Your task to perform on an android device: turn off priority inbox in the gmail app Image 0: 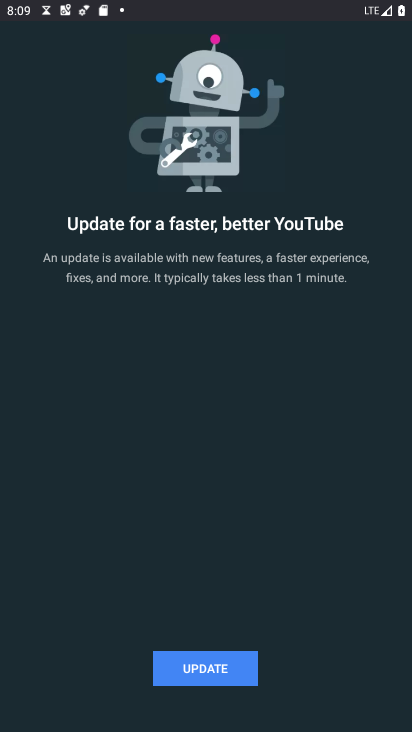
Step 0: press back button
Your task to perform on an android device: turn off priority inbox in the gmail app Image 1: 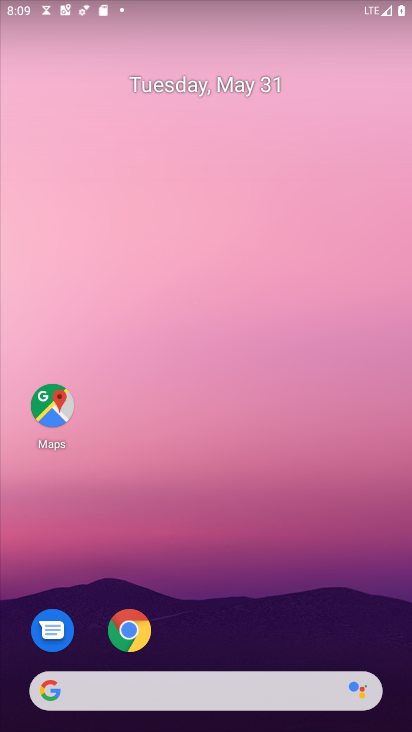
Step 1: drag from (275, 615) to (251, 113)
Your task to perform on an android device: turn off priority inbox in the gmail app Image 2: 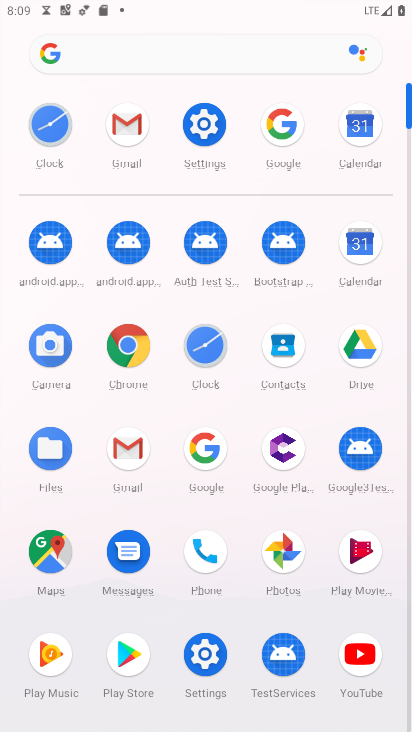
Step 2: click (129, 124)
Your task to perform on an android device: turn off priority inbox in the gmail app Image 3: 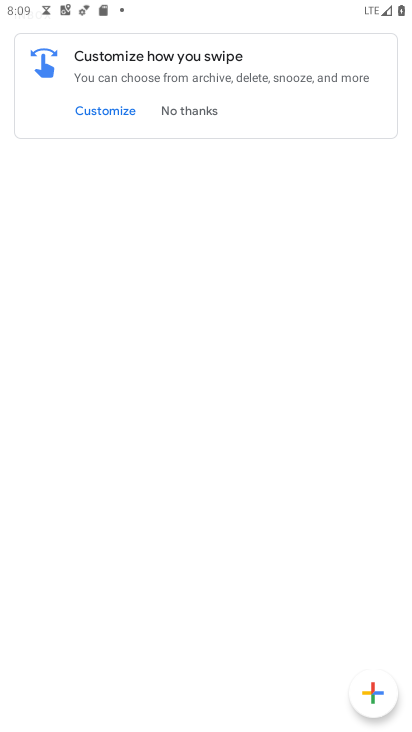
Step 3: click (204, 109)
Your task to perform on an android device: turn off priority inbox in the gmail app Image 4: 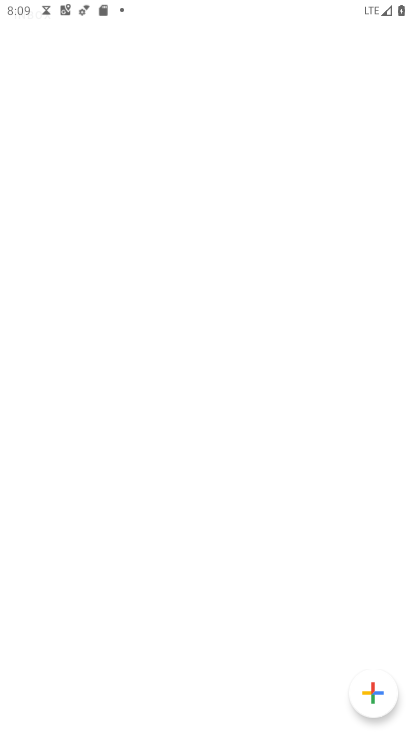
Step 4: click (55, 46)
Your task to perform on an android device: turn off priority inbox in the gmail app Image 5: 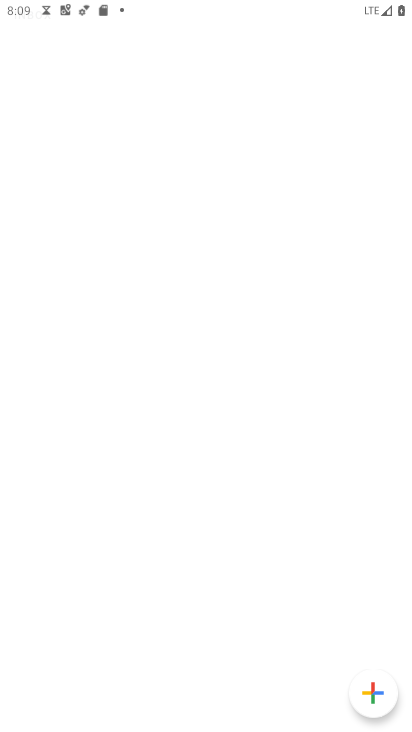
Step 5: drag from (173, 93) to (246, 446)
Your task to perform on an android device: turn off priority inbox in the gmail app Image 6: 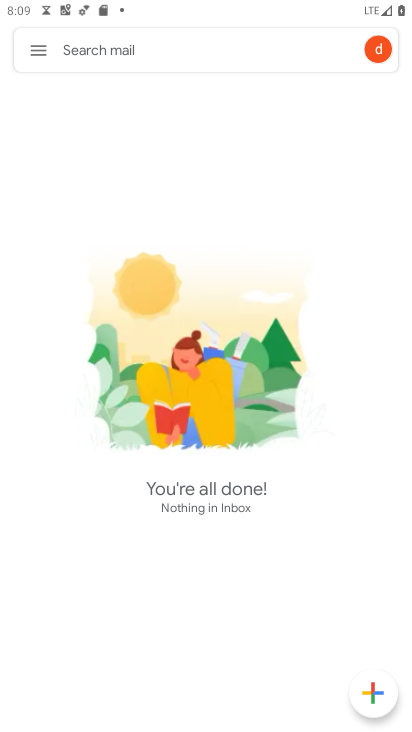
Step 6: click (45, 59)
Your task to perform on an android device: turn off priority inbox in the gmail app Image 7: 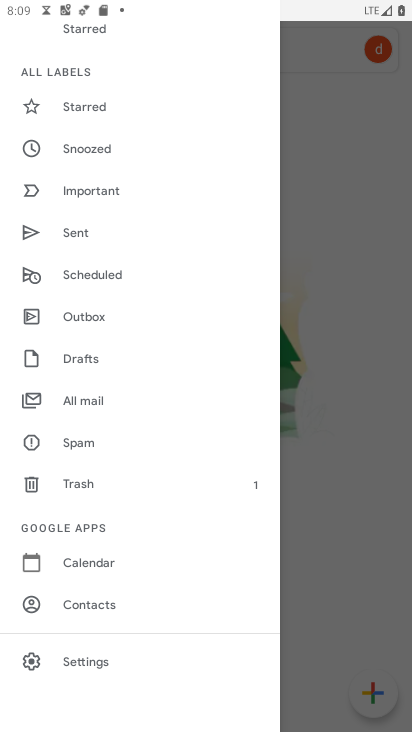
Step 7: click (82, 654)
Your task to perform on an android device: turn off priority inbox in the gmail app Image 8: 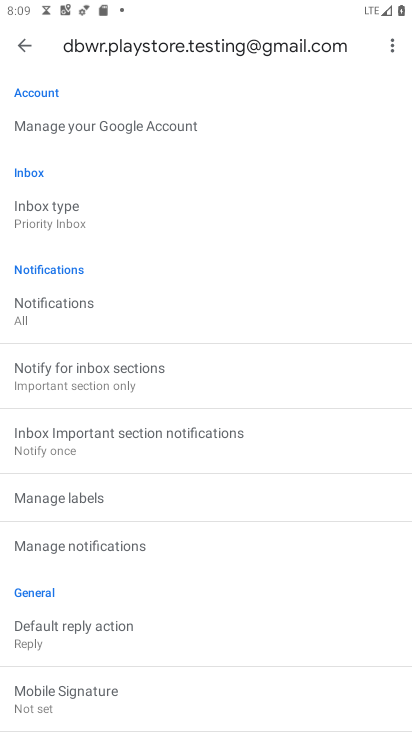
Step 8: click (80, 226)
Your task to perform on an android device: turn off priority inbox in the gmail app Image 9: 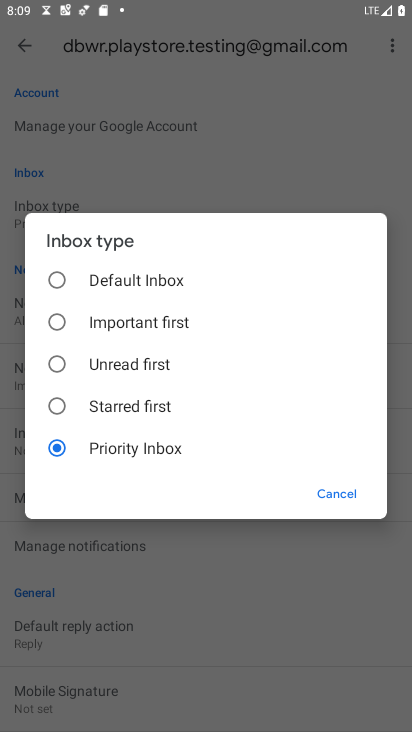
Step 9: click (57, 276)
Your task to perform on an android device: turn off priority inbox in the gmail app Image 10: 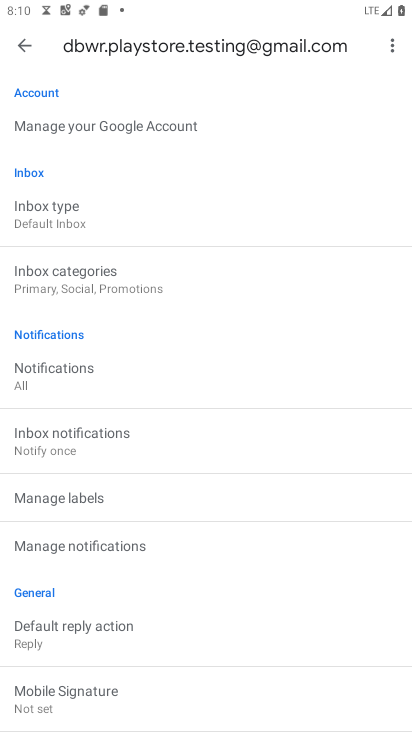
Step 10: task complete